Your task to perform on an android device: visit the assistant section in the google photos Image 0: 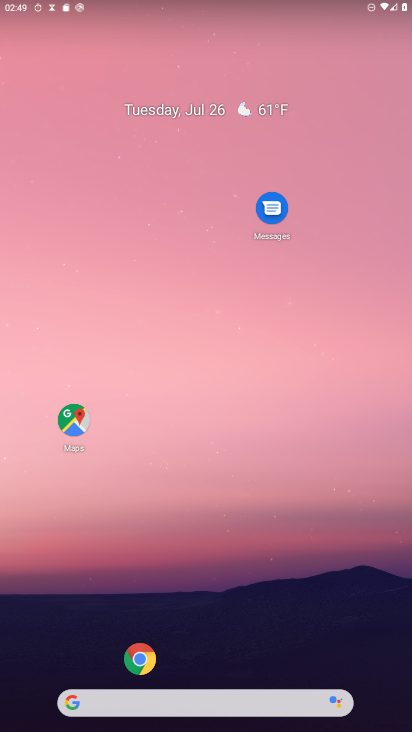
Step 0: drag from (65, 639) to (245, 142)
Your task to perform on an android device: visit the assistant section in the google photos Image 1: 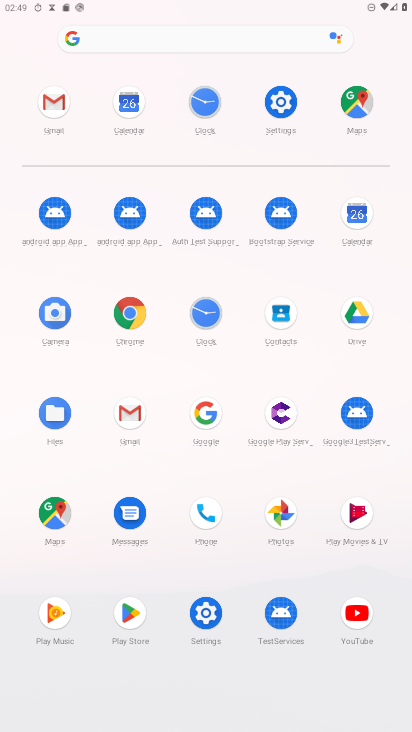
Step 1: click (277, 527)
Your task to perform on an android device: visit the assistant section in the google photos Image 2: 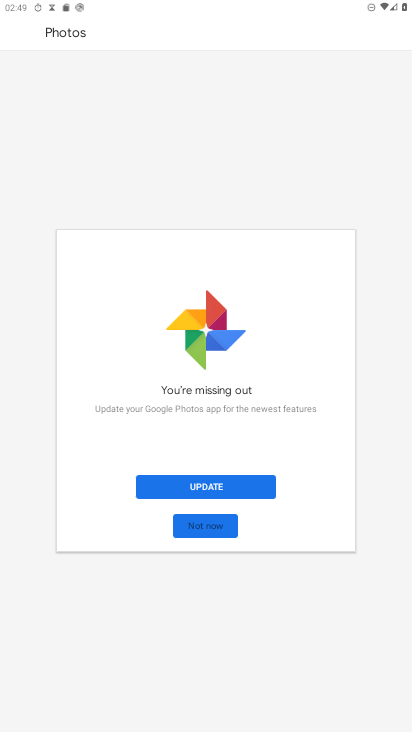
Step 2: click (211, 523)
Your task to perform on an android device: visit the assistant section in the google photos Image 3: 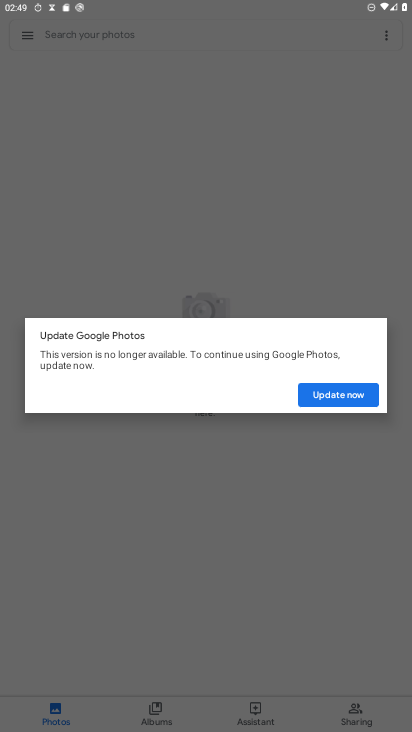
Step 3: click (320, 385)
Your task to perform on an android device: visit the assistant section in the google photos Image 4: 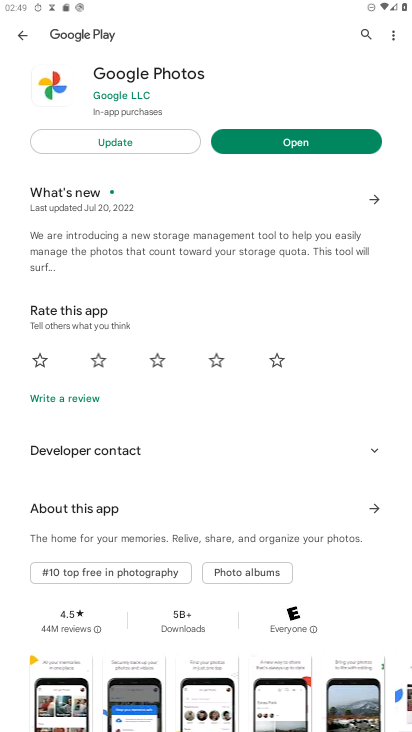
Step 4: click (296, 125)
Your task to perform on an android device: visit the assistant section in the google photos Image 5: 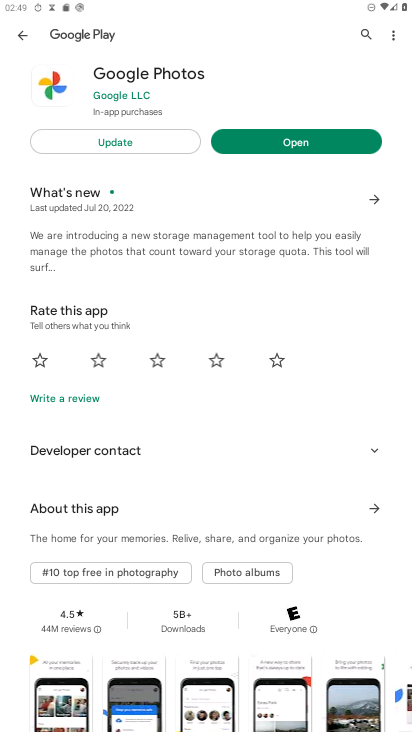
Step 5: click (293, 136)
Your task to perform on an android device: visit the assistant section in the google photos Image 6: 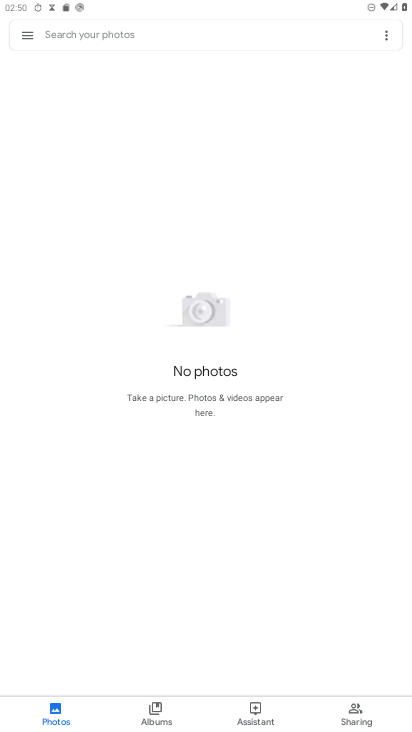
Step 6: click (258, 717)
Your task to perform on an android device: visit the assistant section in the google photos Image 7: 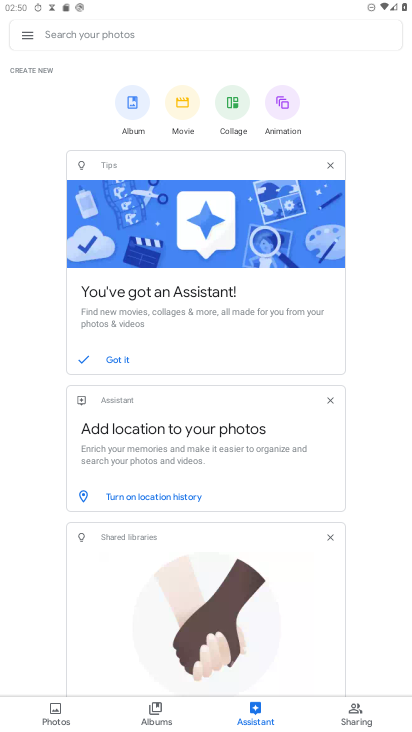
Step 7: task complete